Your task to perform on an android device: check the backup settings in the google photos Image 0: 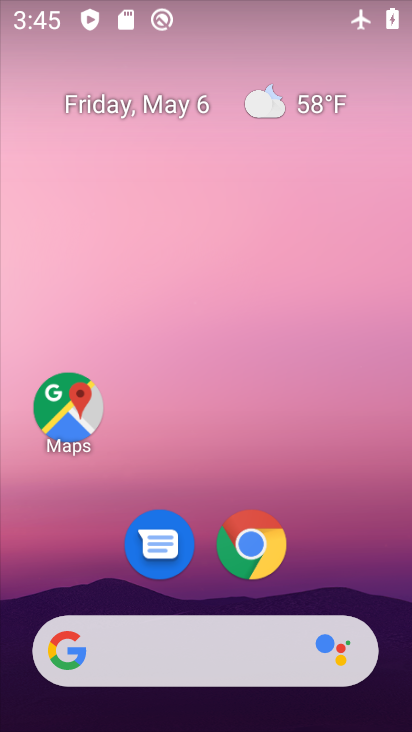
Step 0: drag from (107, 618) to (236, 52)
Your task to perform on an android device: check the backup settings in the google photos Image 1: 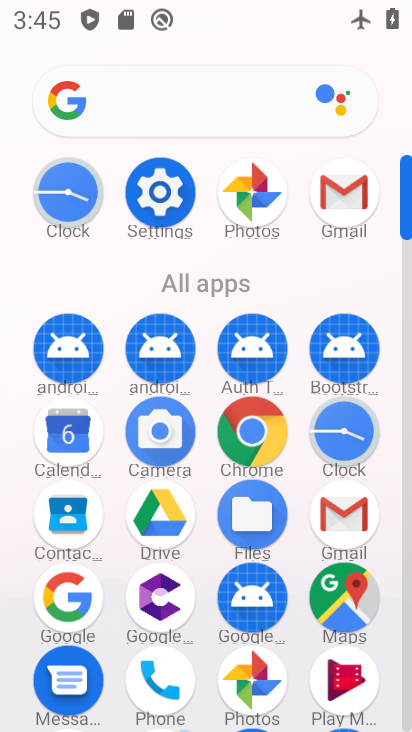
Step 1: click (248, 210)
Your task to perform on an android device: check the backup settings in the google photos Image 2: 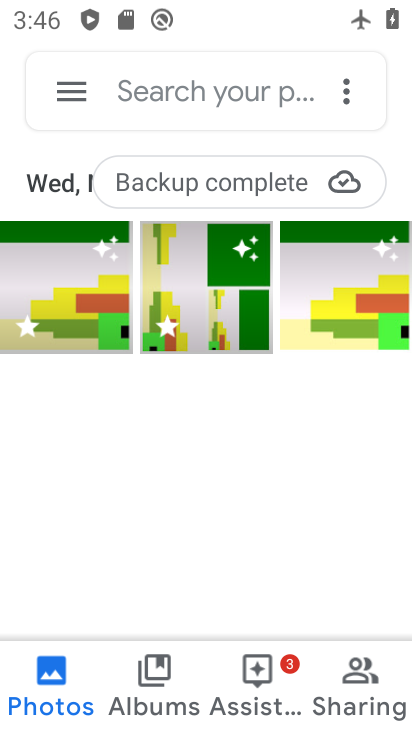
Step 2: click (85, 96)
Your task to perform on an android device: check the backup settings in the google photos Image 3: 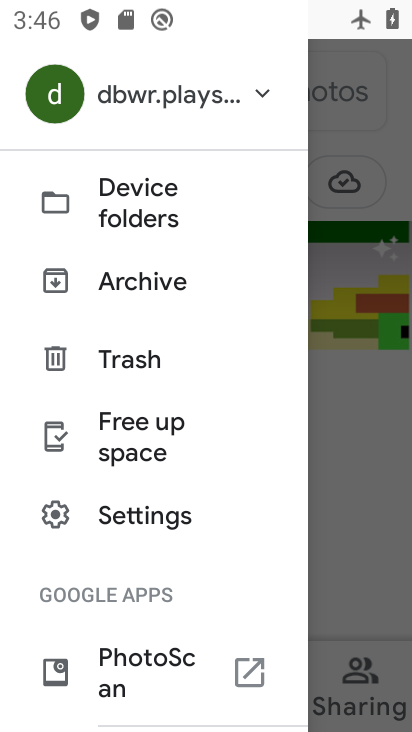
Step 3: drag from (144, 647) to (230, 259)
Your task to perform on an android device: check the backup settings in the google photos Image 4: 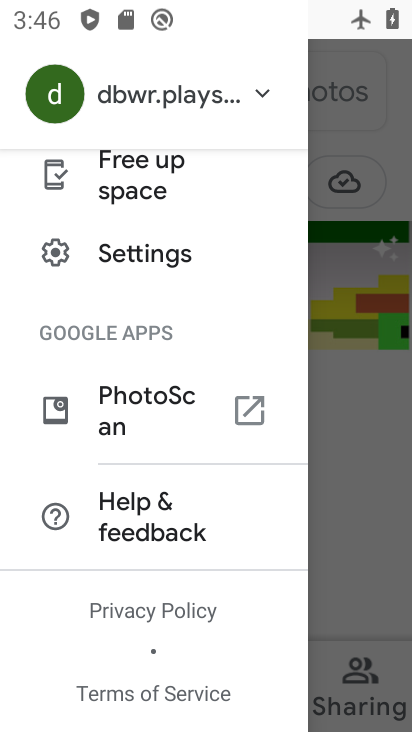
Step 4: click (197, 263)
Your task to perform on an android device: check the backup settings in the google photos Image 5: 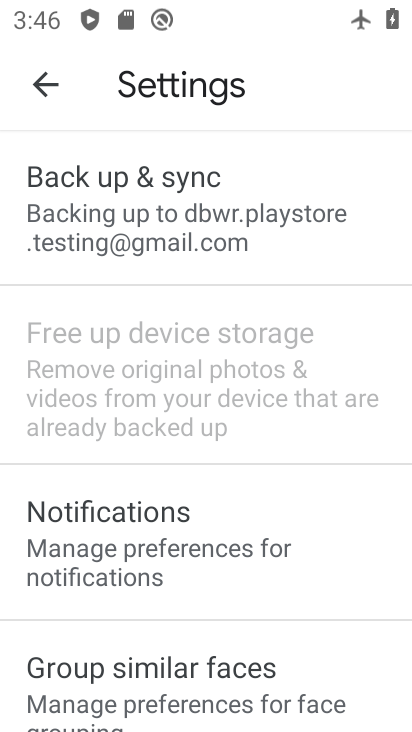
Step 5: click (226, 241)
Your task to perform on an android device: check the backup settings in the google photos Image 6: 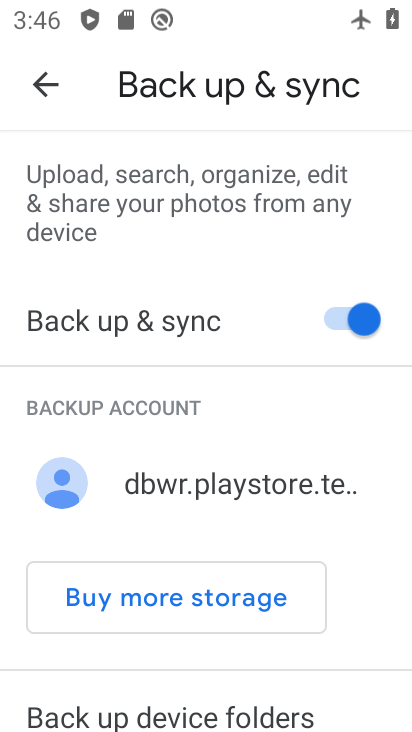
Step 6: task complete